Your task to perform on an android device: manage bookmarks in the chrome app Image 0: 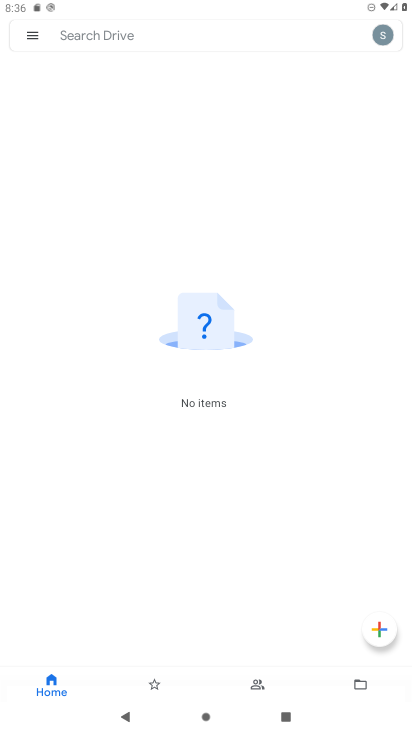
Step 0: press home button
Your task to perform on an android device: manage bookmarks in the chrome app Image 1: 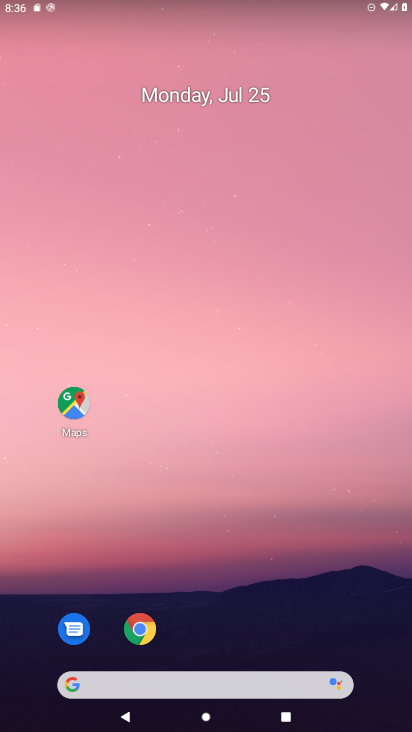
Step 1: click (152, 638)
Your task to perform on an android device: manage bookmarks in the chrome app Image 2: 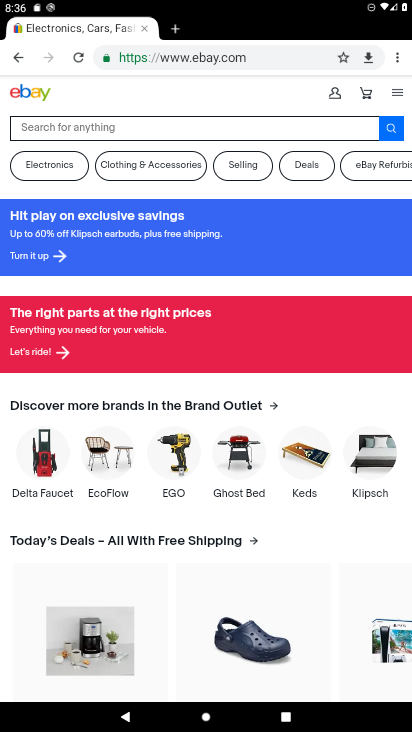
Step 2: click (403, 60)
Your task to perform on an android device: manage bookmarks in the chrome app Image 3: 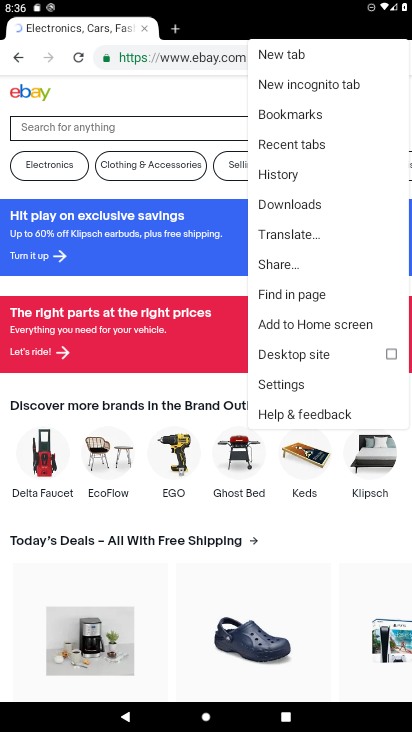
Step 3: click (289, 119)
Your task to perform on an android device: manage bookmarks in the chrome app Image 4: 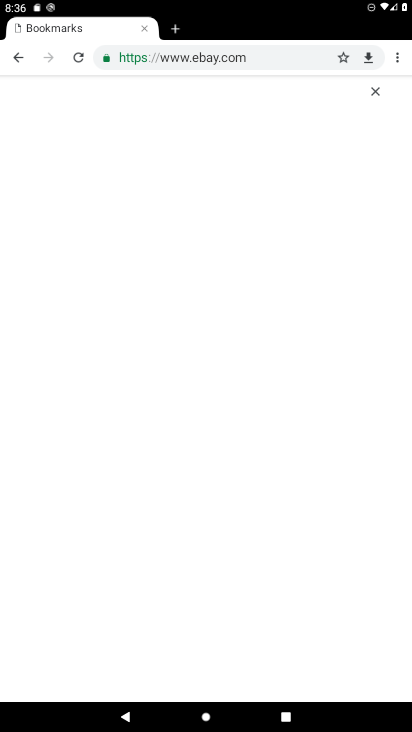
Step 4: drag from (239, 238) to (245, 146)
Your task to perform on an android device: manage bookmarks in the chrome app Image 5: 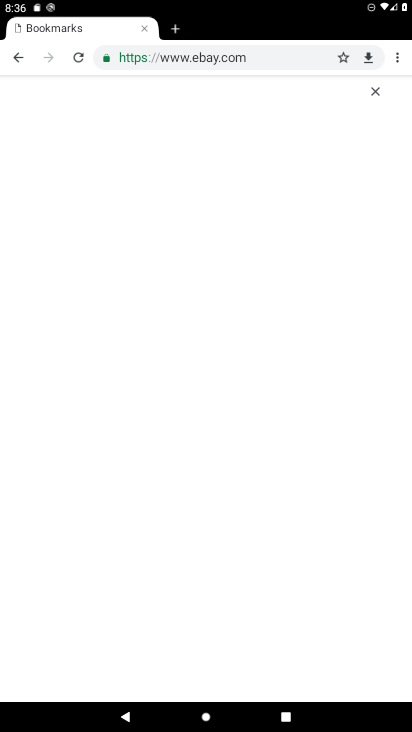
Step 5: drag from (245, 143) to (240, 477)
Your task to perform on an android device: manage bookmarks in the chrome app Image 6: 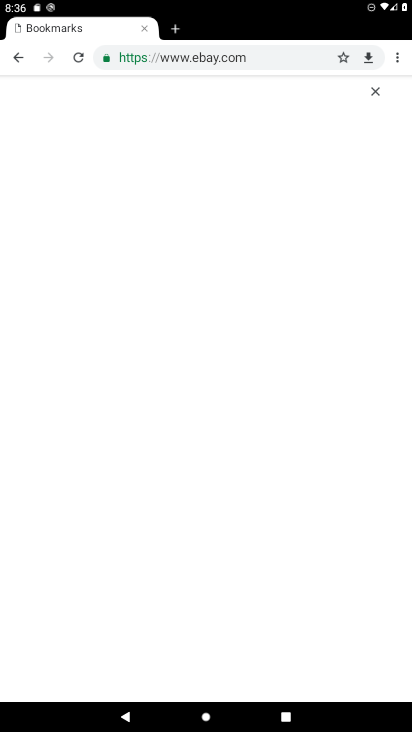
Step 6: click (262, 119)
Your task to perform on an android device: manage bookmarks in the chrome app Image 7: 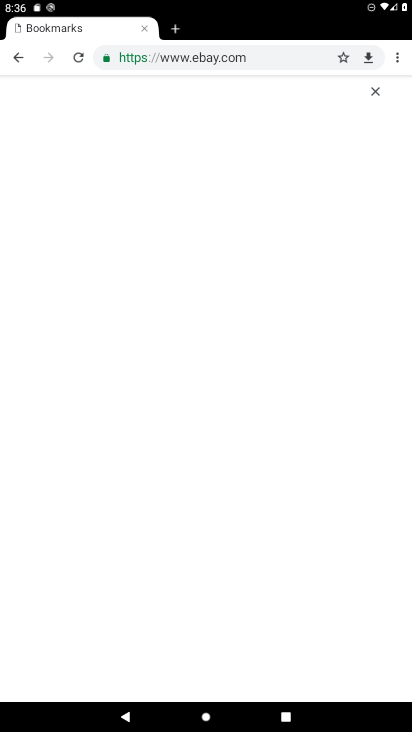
Step 7: click (300, 82)
Your task to perform on an android device: manage bookmarks in the chrome app Image 8: 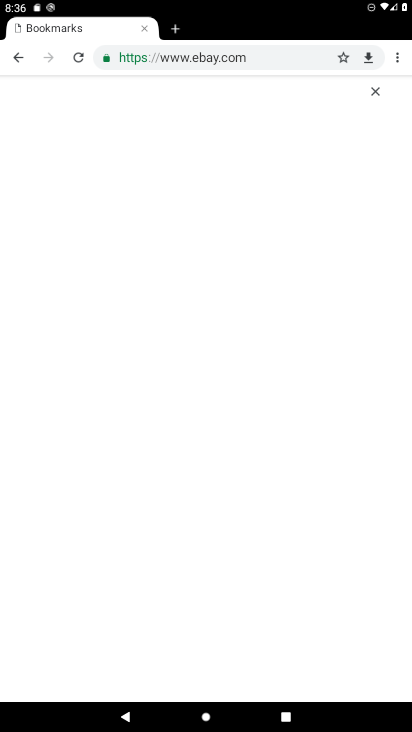
Step 8: click (73, 59)
Your task to perform on an android device: manage bookmarks in the chrome app Image 9: 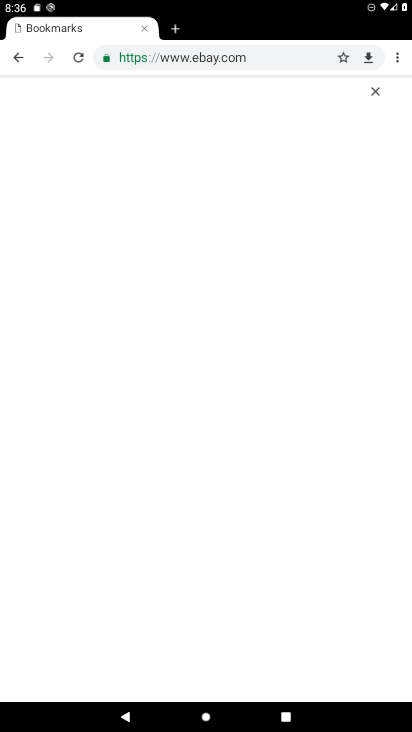
Step 9: drag from (176, 530) to (210, 268)
Your task to perform on an android device: manage bookmarks in the chrome app Image 10: 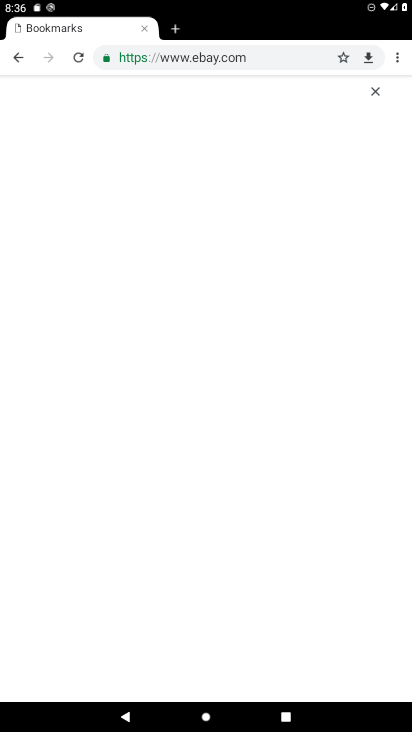
Step 10: drag from (186, 159) to (162, 487)
Your task to perform on an android device: manage bookmarks in the chrome app Image 11: 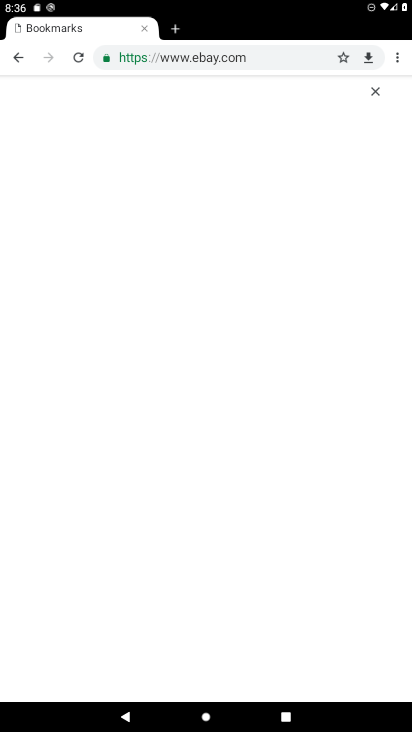
Step 11: click (397, 58)
Your task to perform on an android device: manage bookmarks in the chrome app Image 12: 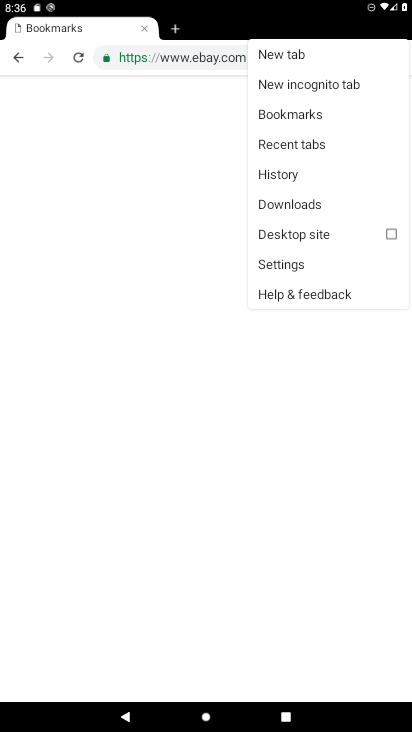
Step 12: click (269, 122)
Your task to perform on an android device: manage bookmarks in the chrome app Image 13: 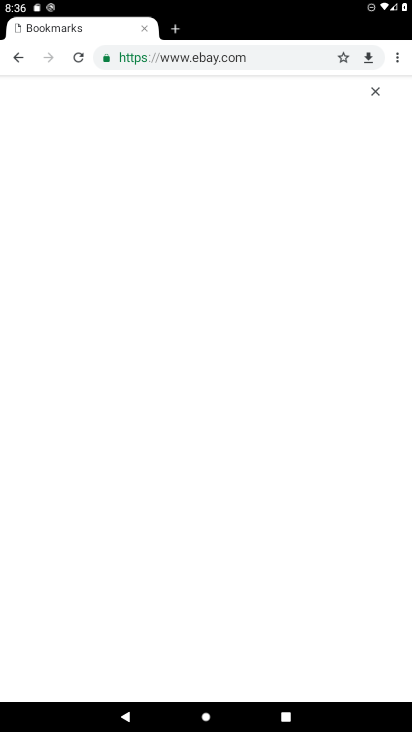
Step 13: task complete